Your task to perform on an android device: clear history in the chrome app Image 0: 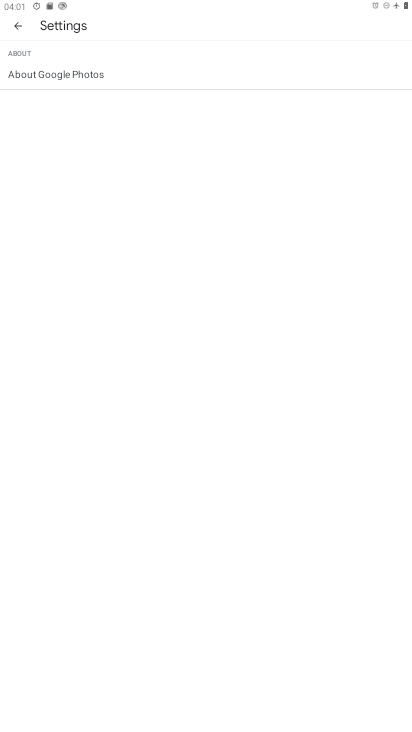
Step 0: press home button
Your task to perform on an android device: clear history in the chrome app Image 1: 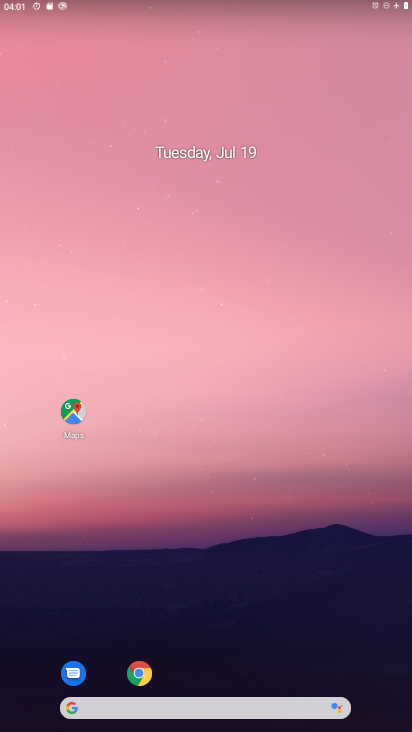
Step 1: click (142, 676)
Your task to perform on an android device: clear history in the chrome app Image 2: 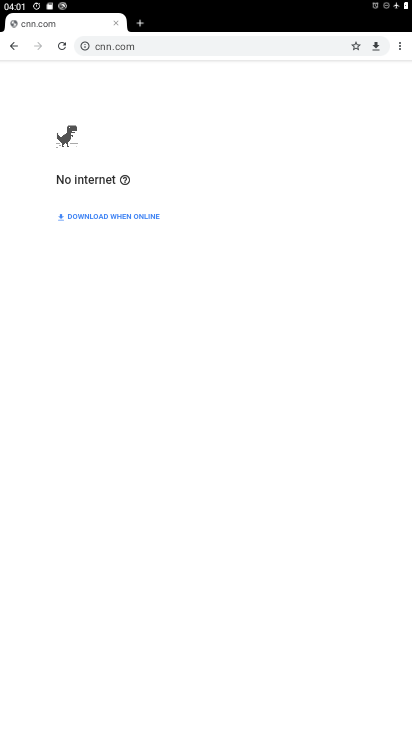
Step 2: click (400, 44)
Your task to perform on an android device: clear history in the chrome app Image 3: 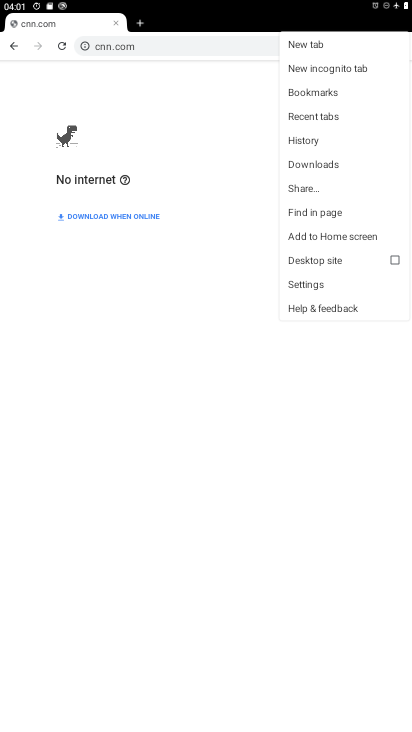
Step 3: click (307, 141)
Your task to perform on an android device: clear history in the chrome app Image 4: 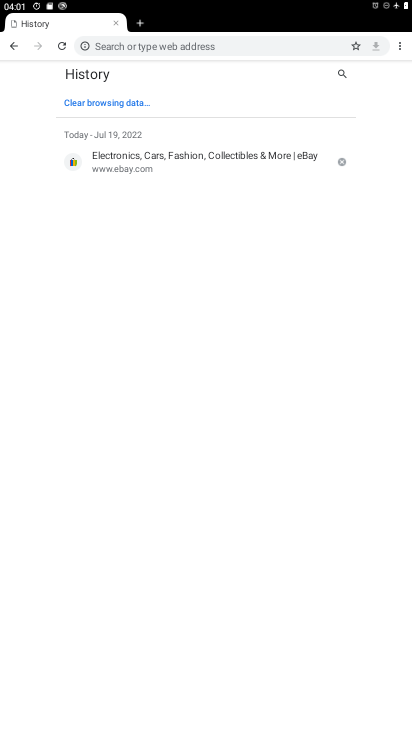
Step 4: click (117, 103)
Your task to perform on an android device: clear history in the chrome app Image 5: 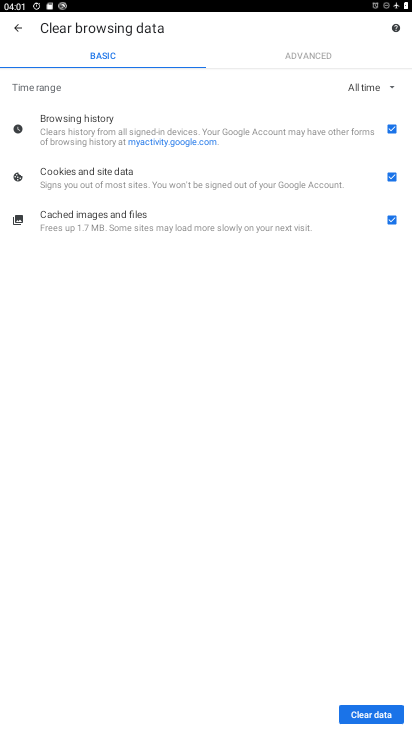
Step 5: click (372, 711)
Your task to perform on an android device: clear history in the chrome app Image 6: 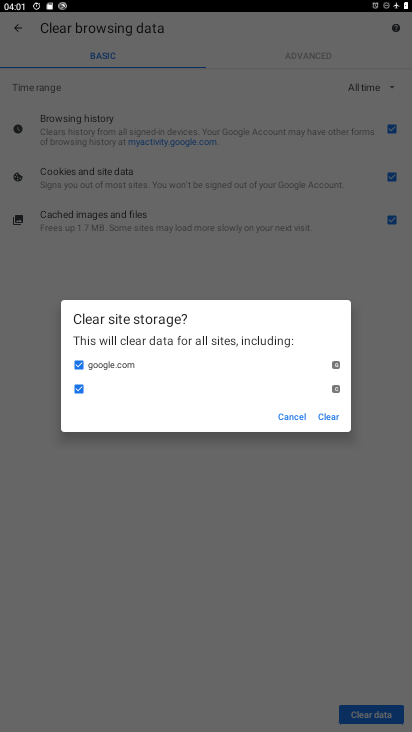
Step 6: click (326, 419)
Your task to perform on an android device: clear history in the chrome app Image 7: 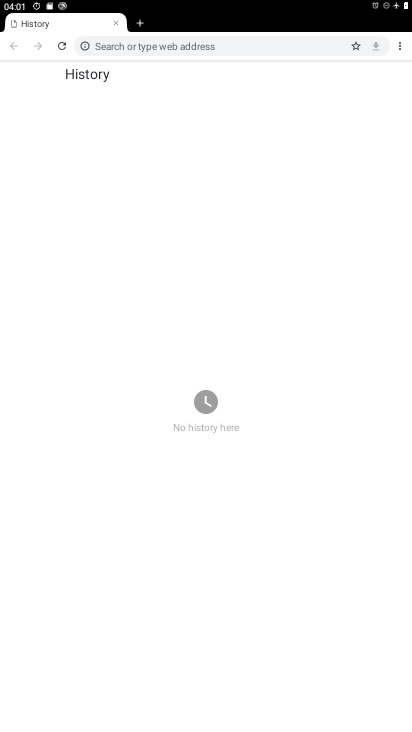
Step 7: task complete